Your task to perform on an android device: turn on wifi Image 0: 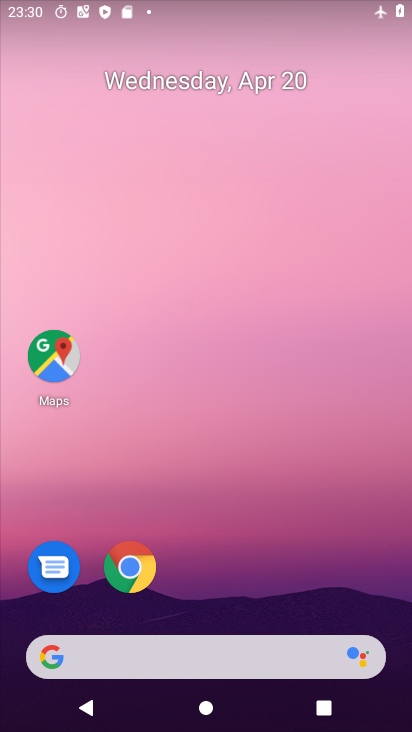
Step 0: drag from (267, 299) to (268, 260)
Your task to perform on an android device: turn on wifi Image 1: 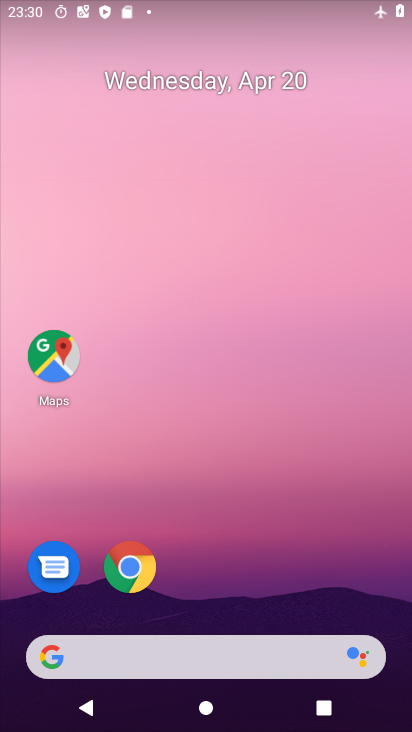
Step 1: drag from (177, 625) to (276, 202)
Your task to perform on an android device: turn on wifi Image 2: 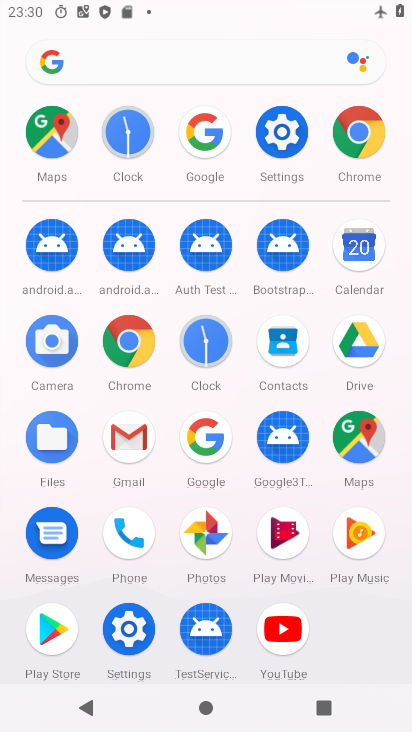
Step 2: click (268, 126)
Your task to perform on an android device: turn on wifi Image 3: 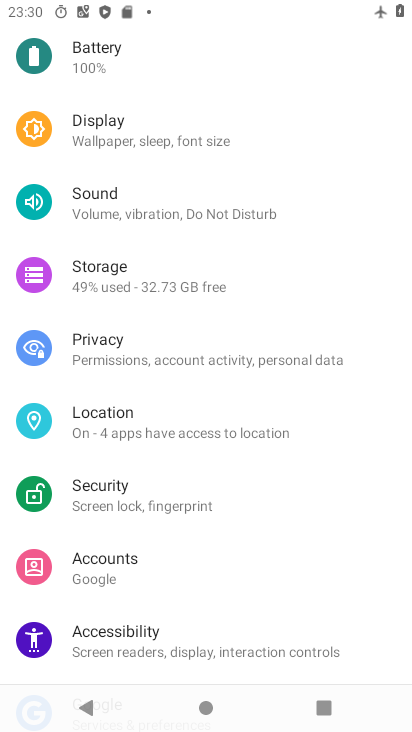
Step 3: drag from (287, 43) to (223, 586)
Your task to perform on an android device: turn on wifi Image 4: 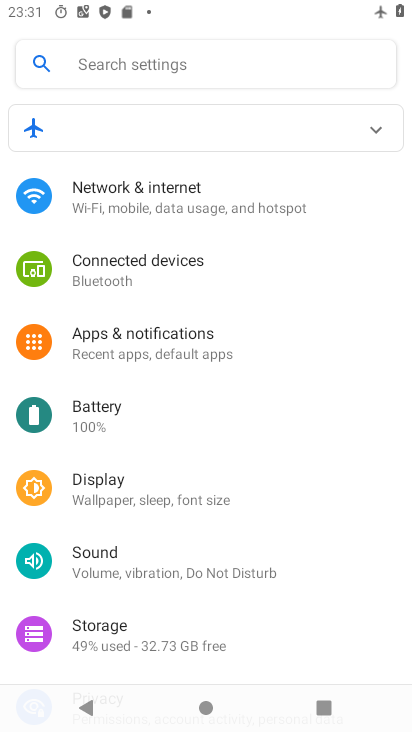
Step 4: click (189, 203)
Your task to perform on an android device: turn on wifi Image 5: 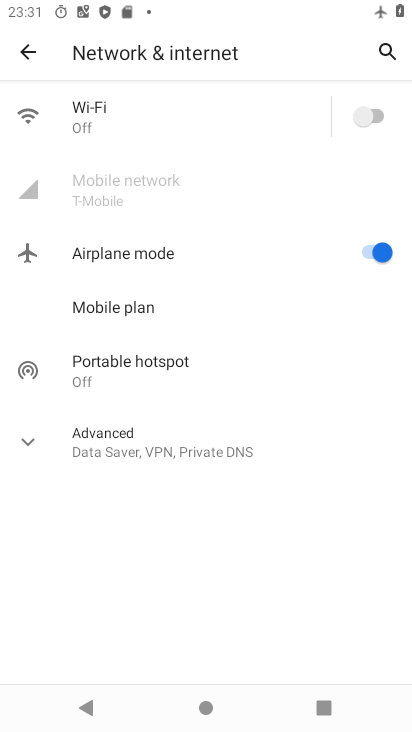
Step 5: click (383, 106)
Your task to perform on an android device: turn on wifi Image 6: 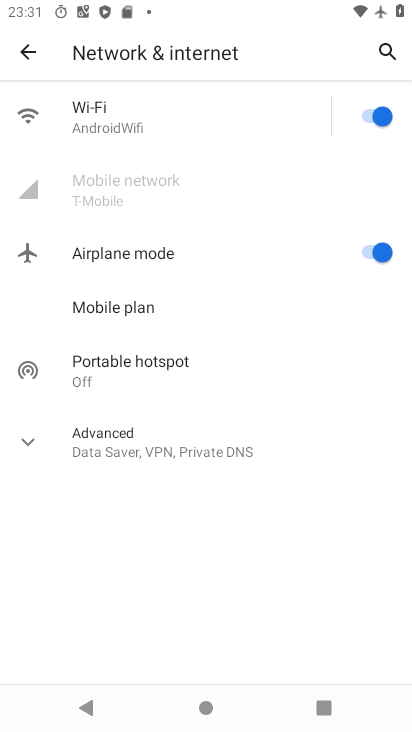
Step 6: task complete